Your task to perform on an android device: Open calendar and show me the third week of next month Image 0: 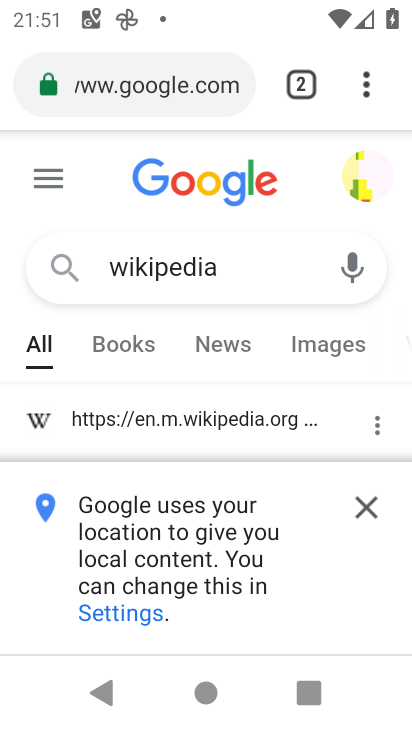
Step 0: press home button
Your task to perform on an android device: Open calendar and show me the third week of next month Image 1: 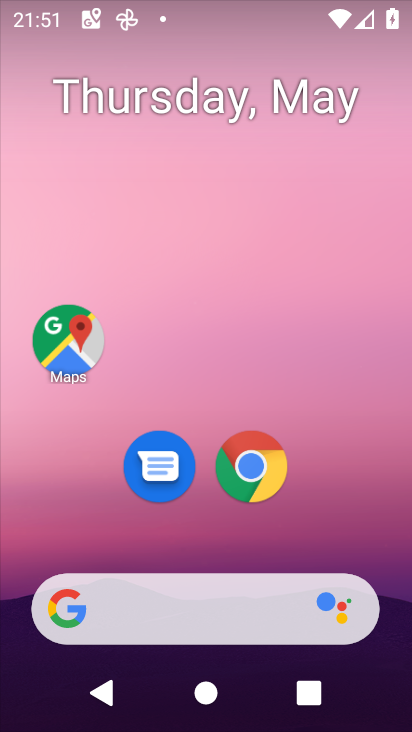
Step 1: drag from (356, 537) to (357, 140)
Your task to perform on an android device: Open calendar and show me the third week of next month Image 2: 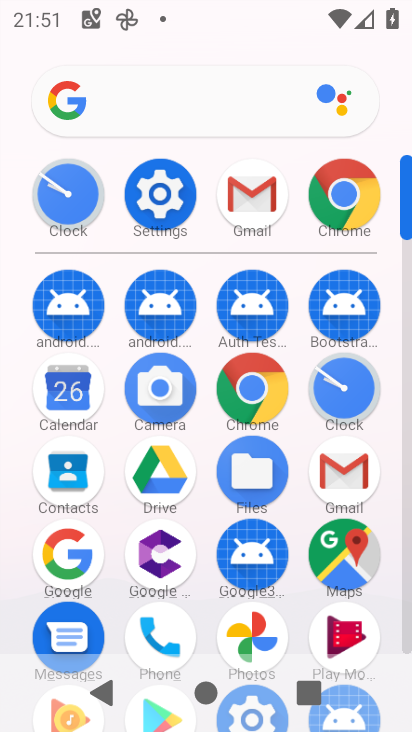
Step 2: click (67, 384)
Your task to perform on an android device: Open calendar and show me the third week of next month Image 3: 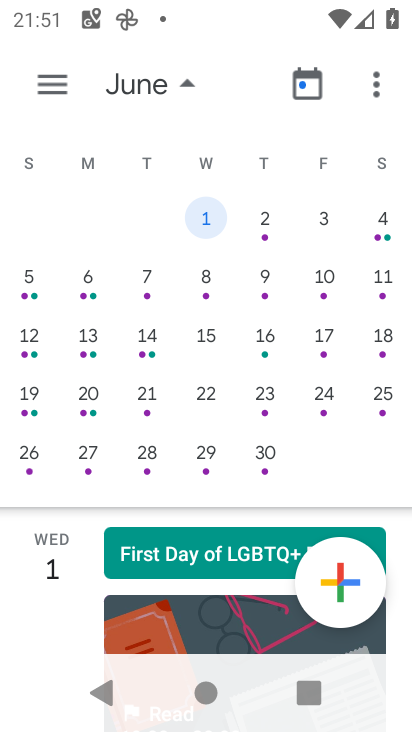
Step 3: click (216, 382)
Your task to perform on an android device: Open calendar and show me the third week of next month Image 4: 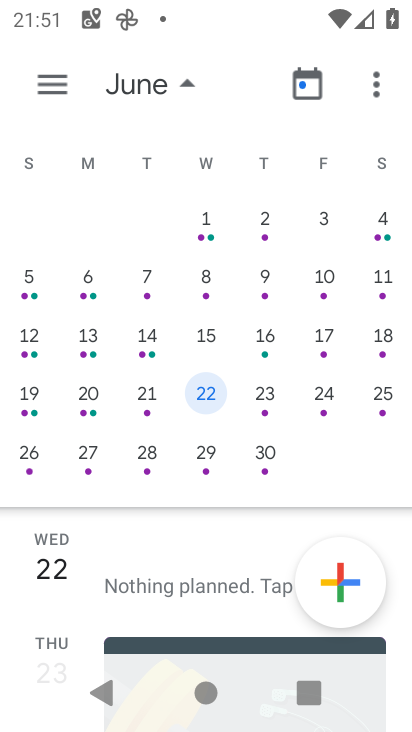
Step 4: task complete